Your task to perform on an android device: turn on location history Image 0: 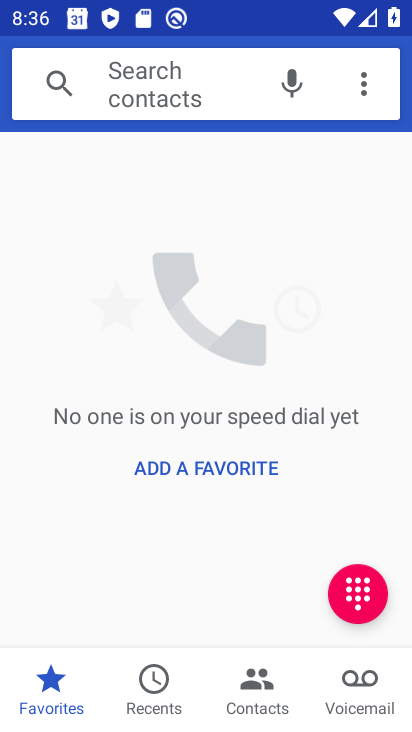
Step 0: press back button
Your task to perform on an android device: turn on location history Image 1: 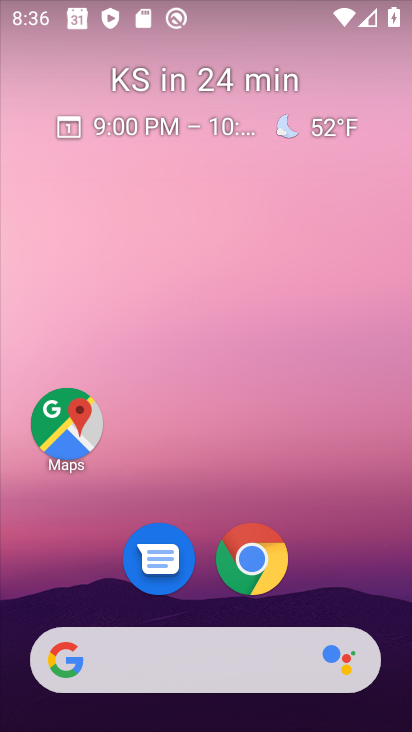
Step 1: drag from (329, 520) to (310, 14)
Your task to perform on an android device: turn on location history Image 2: 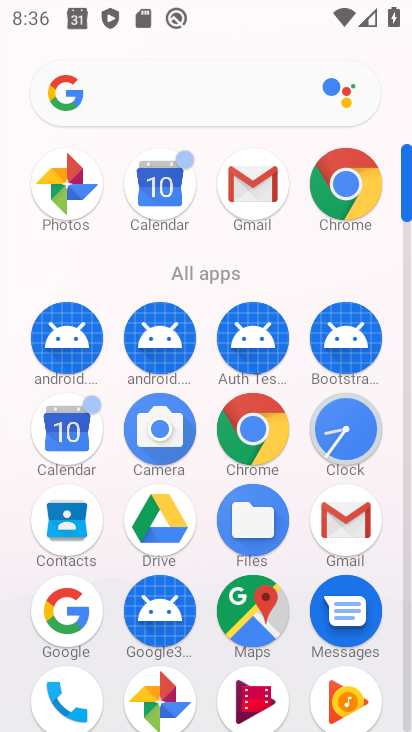
Step 2: drag from (8, 615) to (33, 287)
Your task to perform on an android device: turn on location history Image 3: 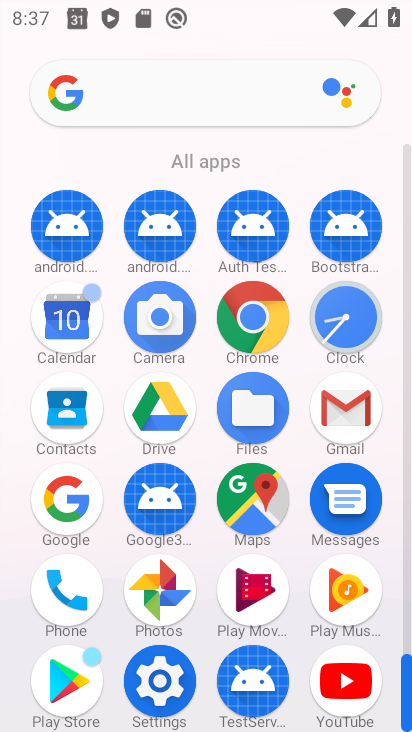
Step 3: click (159, 681)
Your task to perform on an android device: turn on location history Image 4: 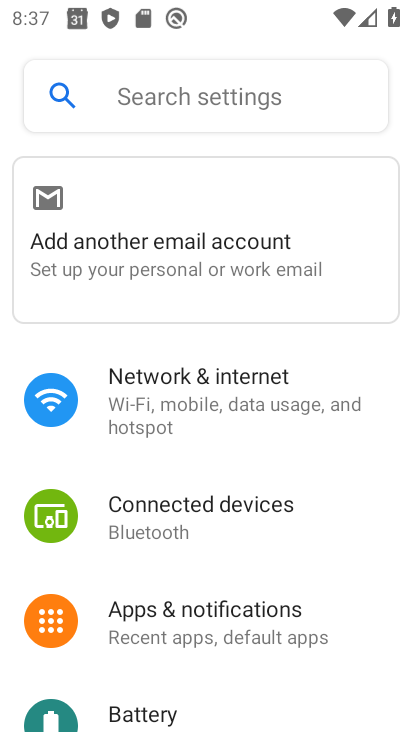
Step 4: drag from (237, 627) to (278, 191)
Your task to perform on an android device: turn on location history Image 5: 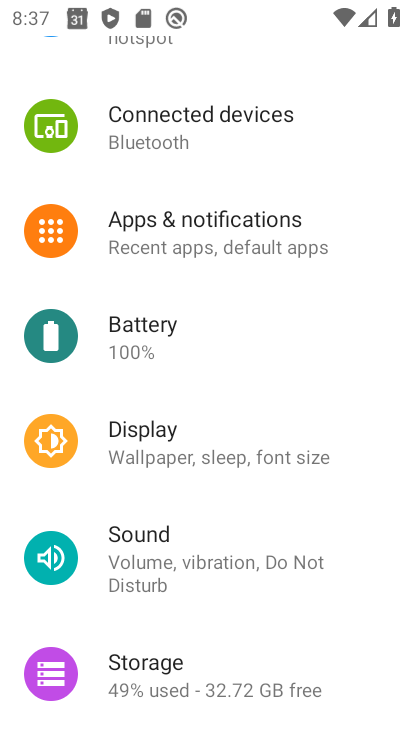
Step 5: drag from (241, 558) to (230, 155)
Your task to perform on an android device: turn on location history Image 6: 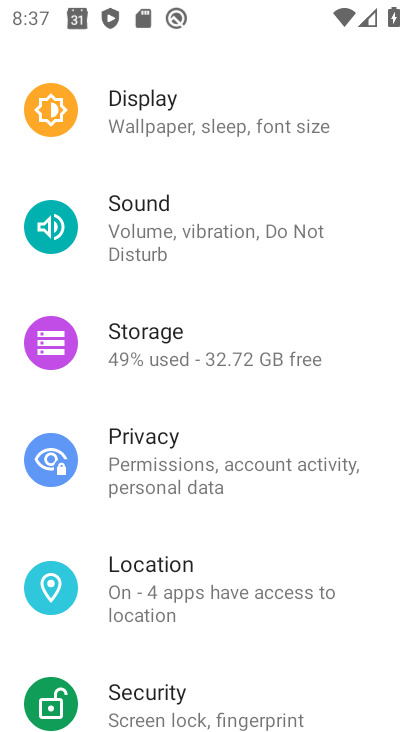
Step 6: click (157, 587)
Your task to perform on an android device: turn on location history Image 7: 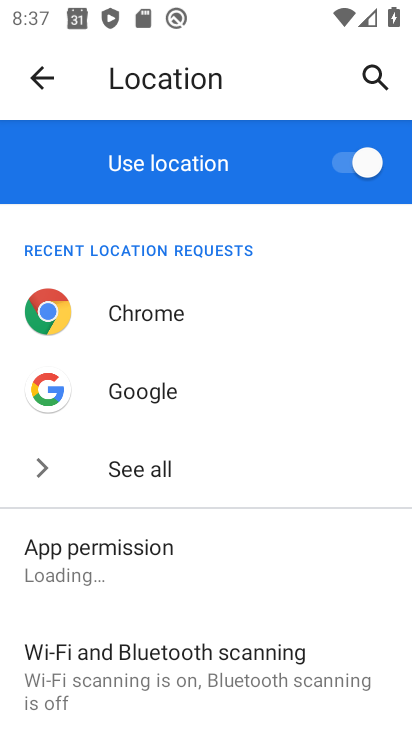
Step 7: drag from (226, 583) to (270, 180)
Your task to perform on an android device: turn on location history Image 8: 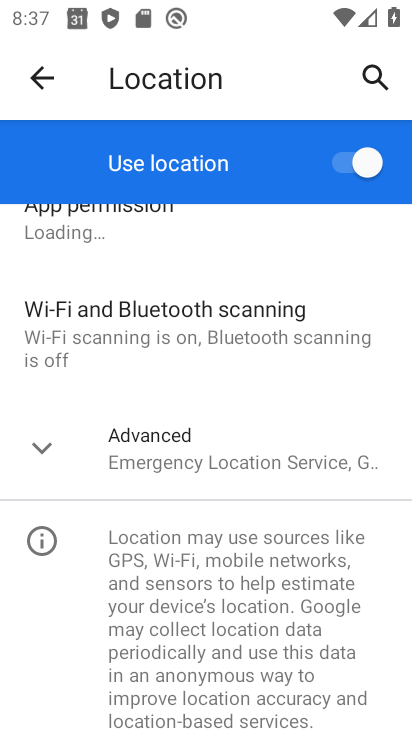
Step 8: click (131, 456)
Your task to perform on an android device: turn on location history Image 9: 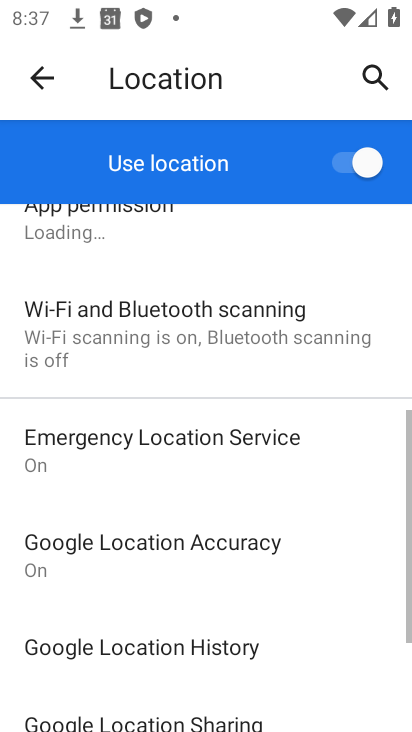
Step 9: drag from (208, 622) to (246, 338)
Your task to perform on an android device: turn on location history Image 10: 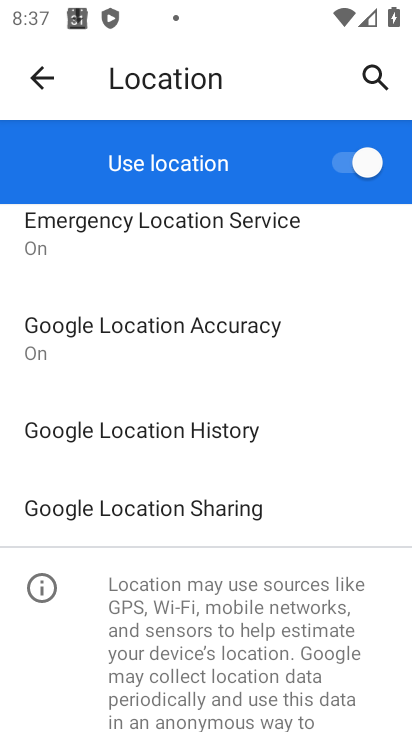
Step 10: click (165, 442)
Your task to perform on an android device: turn on location history Image 11: 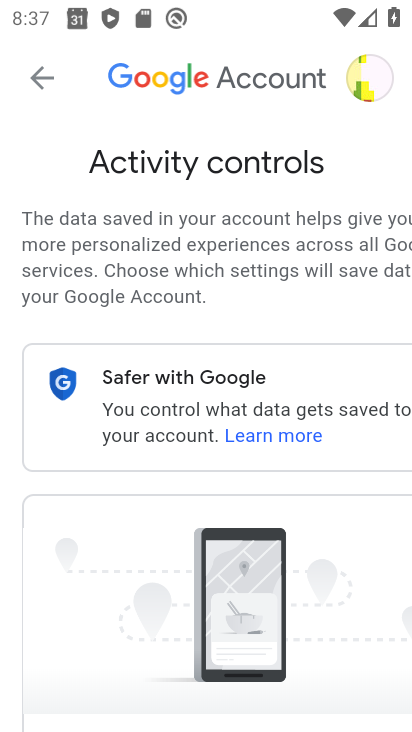
Step 11: drag from (110, 528) to (91, 183)
Your task to perform on an android device: turn on location history Image 12: 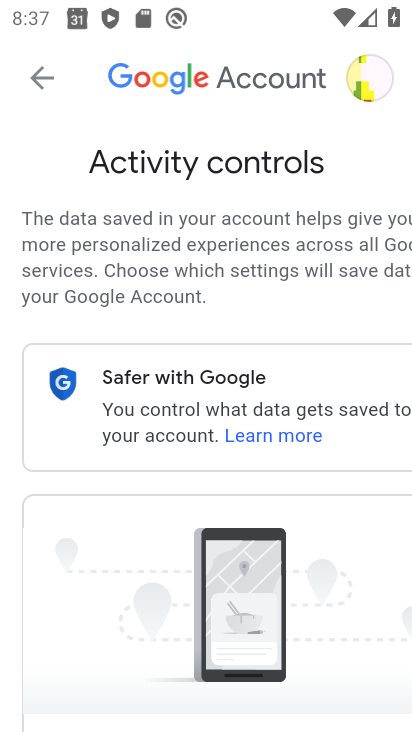
Step 12: drag from (128, 578) to (93, 161)
Your task to perform on an android device: turn on location history Image 13: 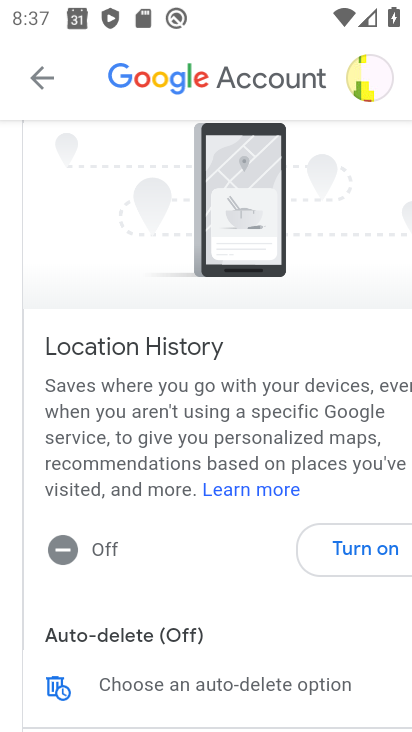
Step 13: click (341, 542)
Your task to perform on an android device: turn on location history Image 14: 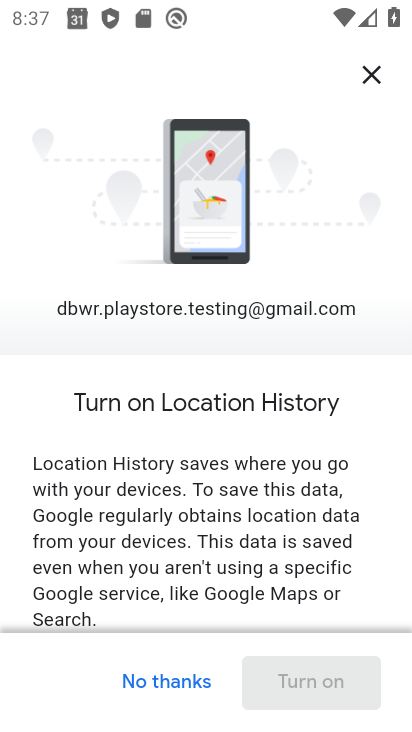
Step 14: drag from (252, 540) to (255, 43)
Your task to perform on an android device: turn on location history Image 15: 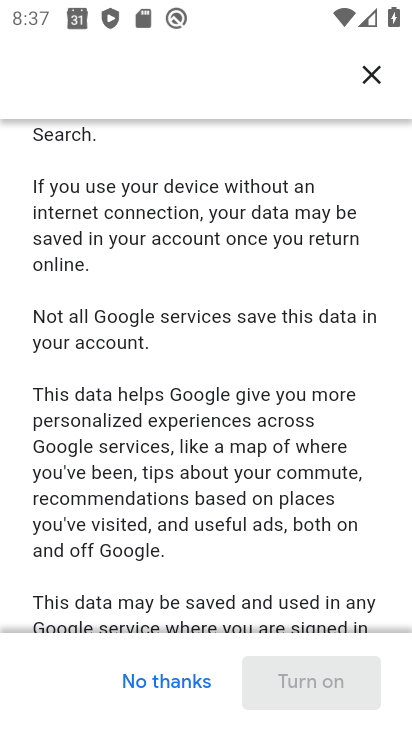
Step 15: drag from (190, 499) to (199, 71)
Your task to perform on an android device: turn on location history Image 16: 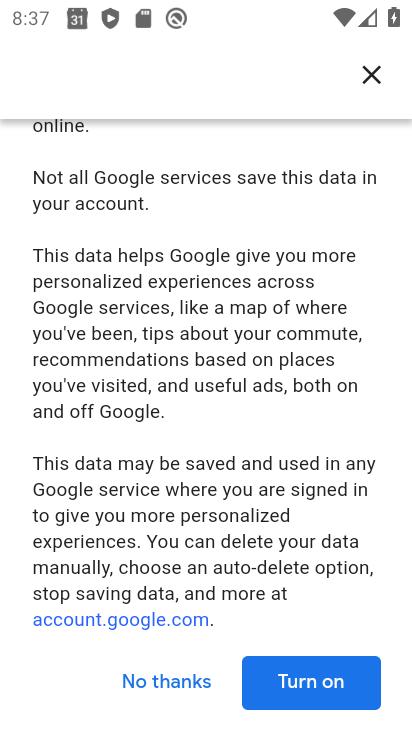
Step 16: click (278, 678)
Your task to perform on an android device: turn on location history Image 17: 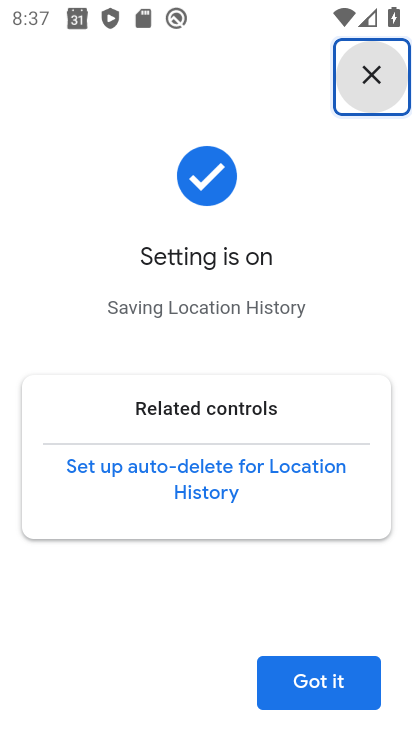
Step 17: task complete